Your task to perform on an android device: Open privacy settings Image 0: 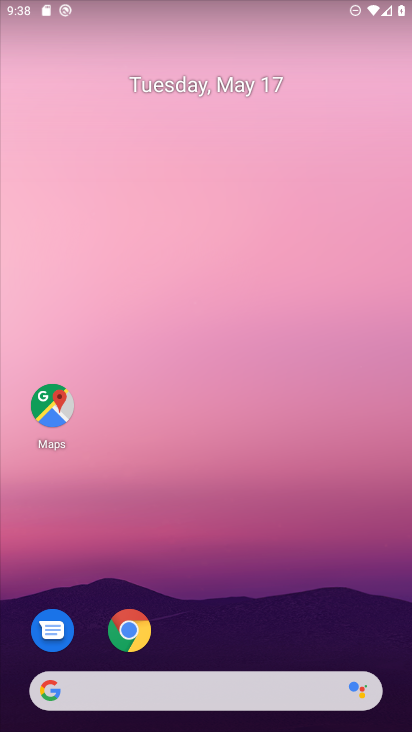
Step 0: drag from (369, 640) to (366, 222)
Your task to perform on an android device: Open privacy settings Image 1: 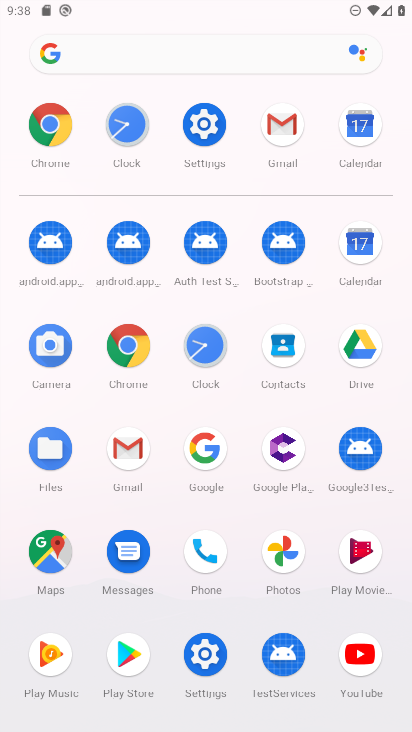
Step 1: click (221, 136)
Your task to perform on an android device: Open privacy settings Image 2: 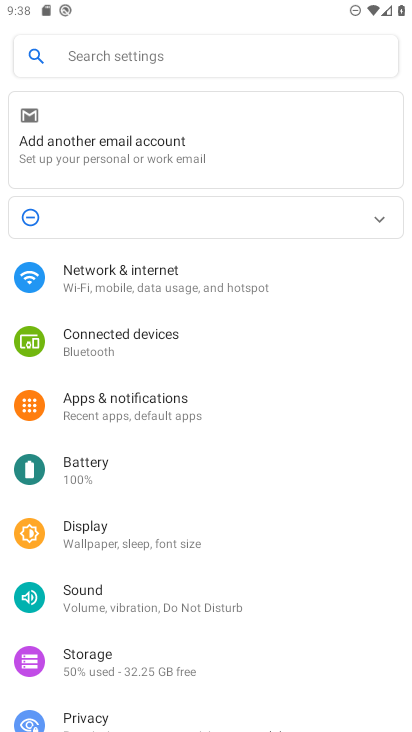
Step 2: drag from (312, 564) to (317, 400)
Your task to perform on an android device: Open privacy settings Image 3: 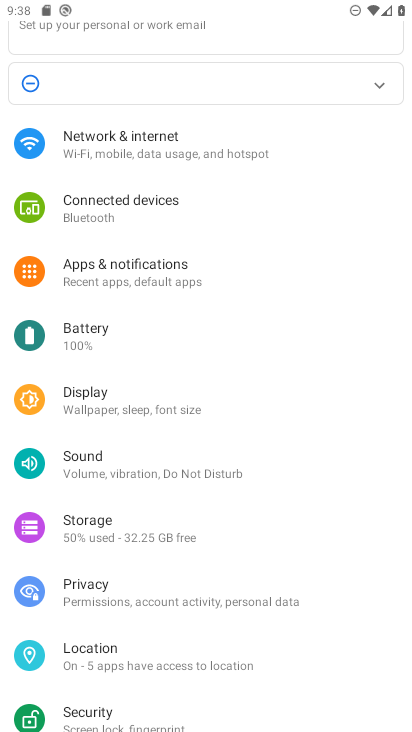
Step 3: drag from (275, 551) to (288, 451)
Your task to perform on an android device: Open privacy settings Image 4: 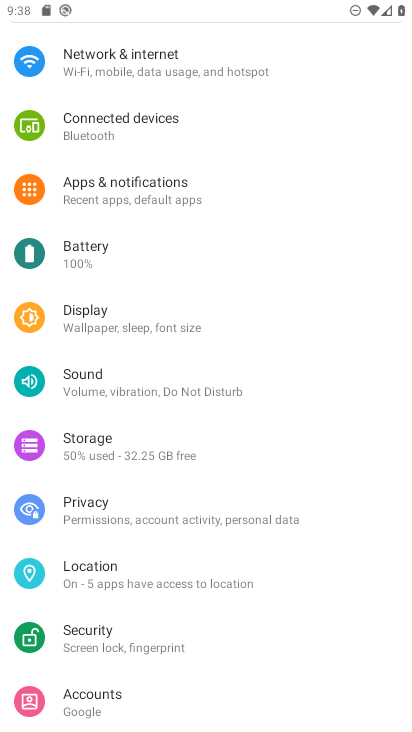
Step 4: click (125, 523)
Your task to perform on an android device: Open privacy settings Image 5: 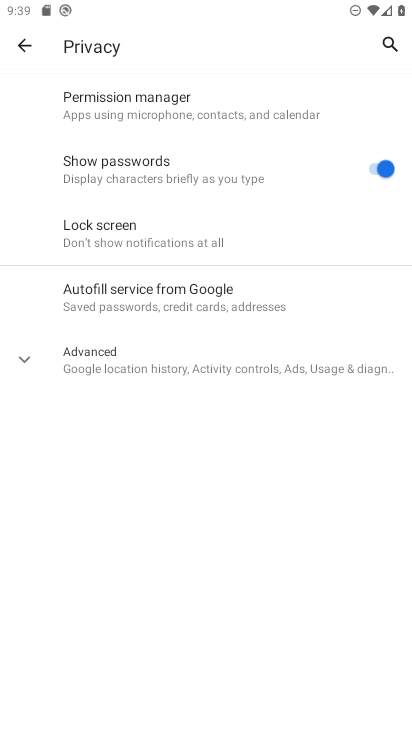
Step 5: task complete